Your task to perform on an android device: Show me popular games on the Play Store Image 0: 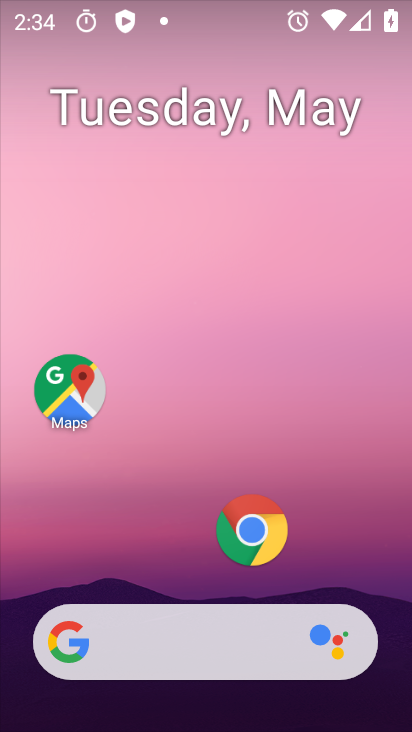
Step 0: drag from (227, 605) to (228, 8)
Your task to perform on an android device: Show me popular games on the Play Store Image 1: 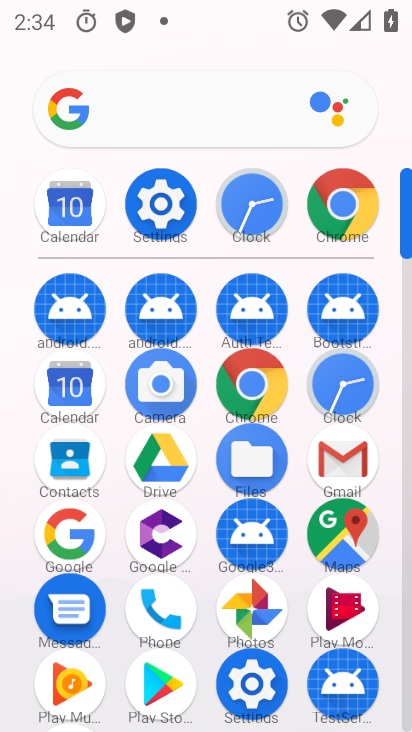
Step 1: click (150, 677)
Your task to perform on an android device: Show me popular games on the Play Store Image 2: 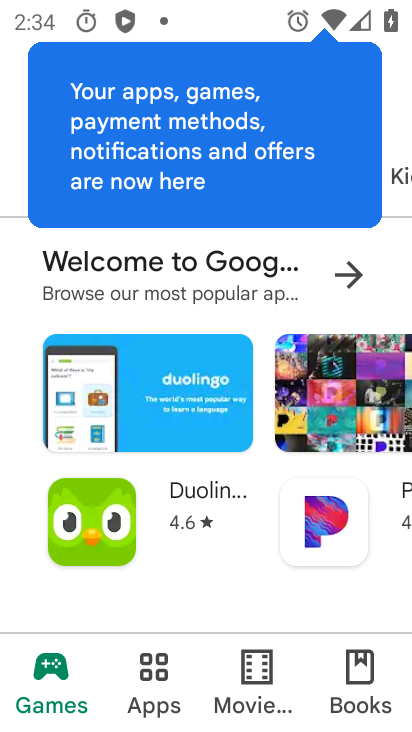
Step 2: task complete